Your task to perform on an android device: turn off javascript in the chrome app Image 0: 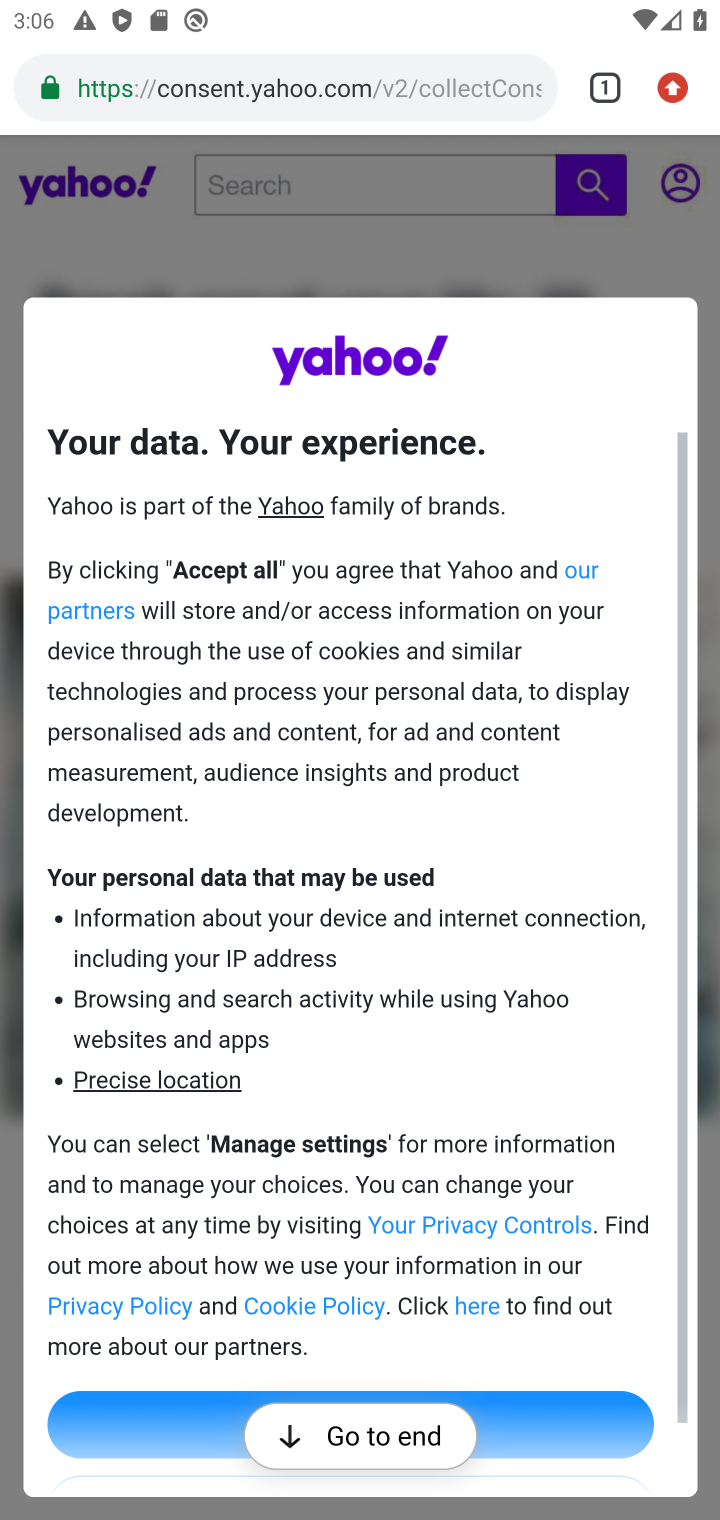
Step 0: drag from (709, 78) to (350, 1170)
Your task to perform on an android device: turn off javascript in the chrome app Image 1: 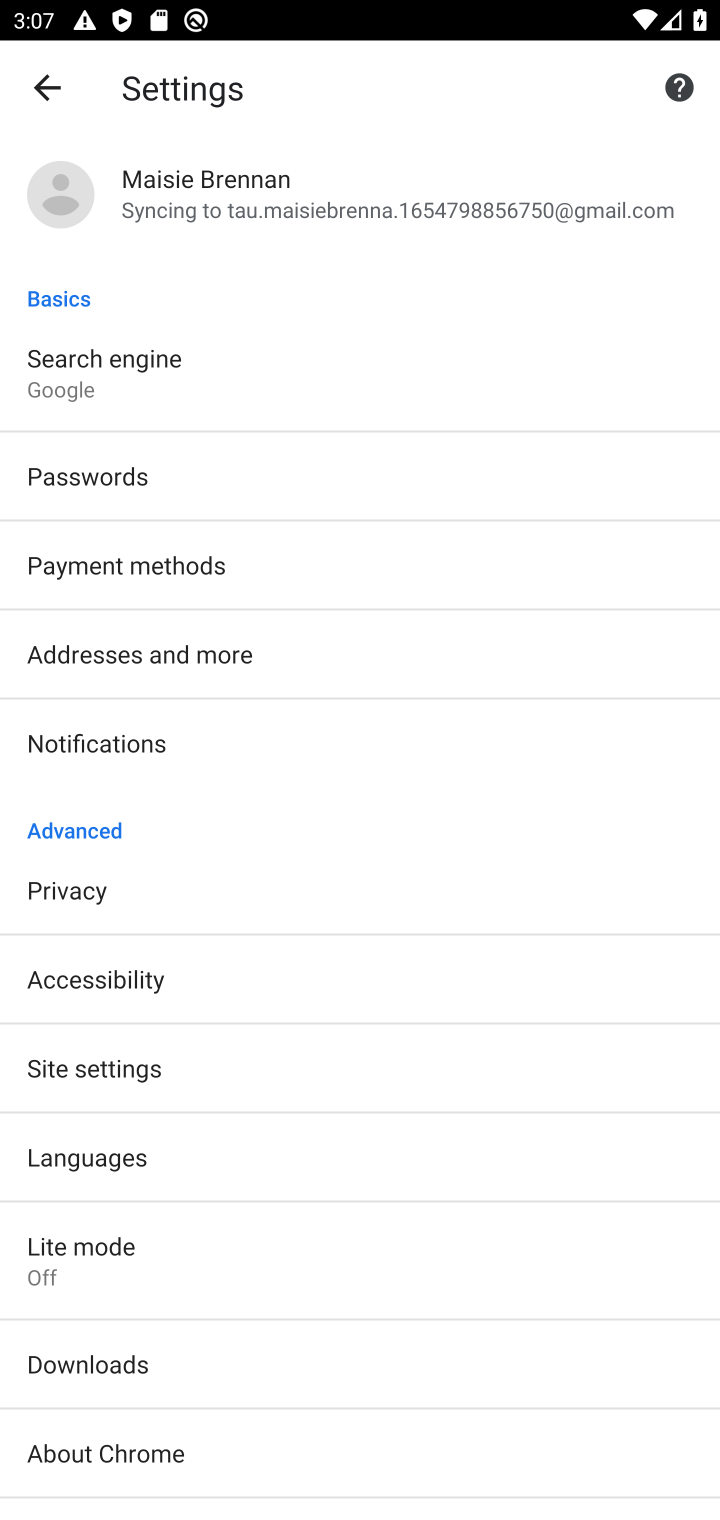
Step 1: click (113, 1058)
Your task to perform on an android device: turn off javascript in the chrome app Image 2: 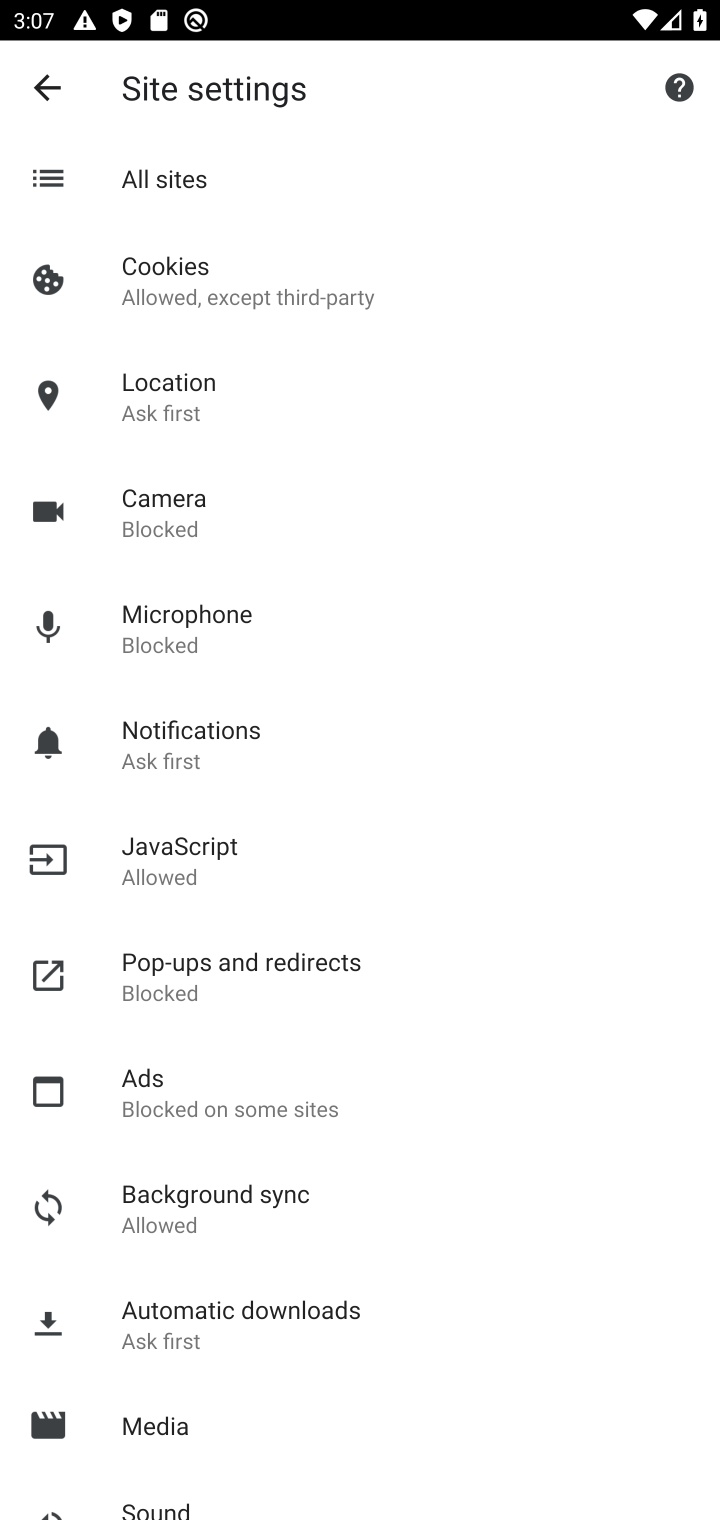
Step 2: click (192, 836)
Your task to perform on an android device: turn off javascript in the chrome app Image 3: 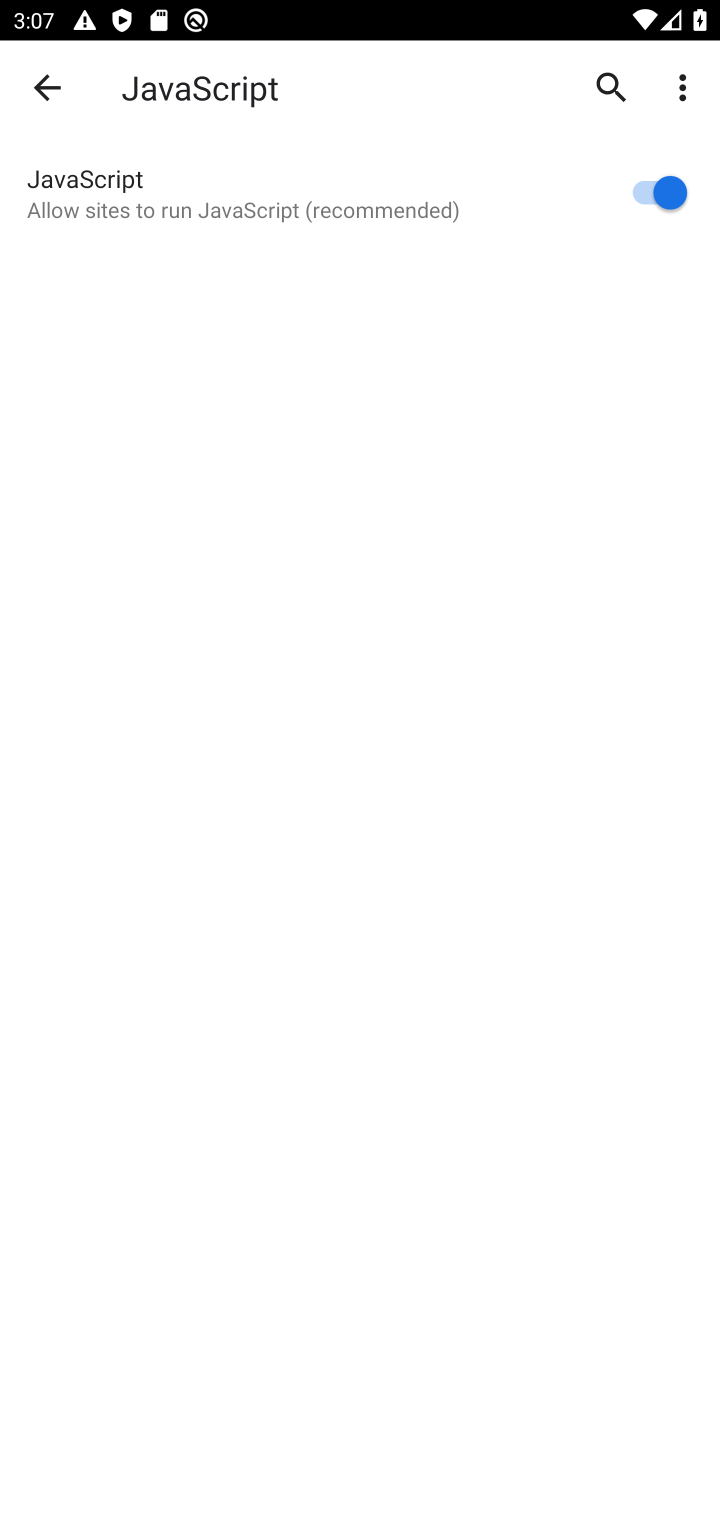
Step 3: click (646, 183)
Your task to perform on an android device: turn off javascript in the chrome app Image 4: 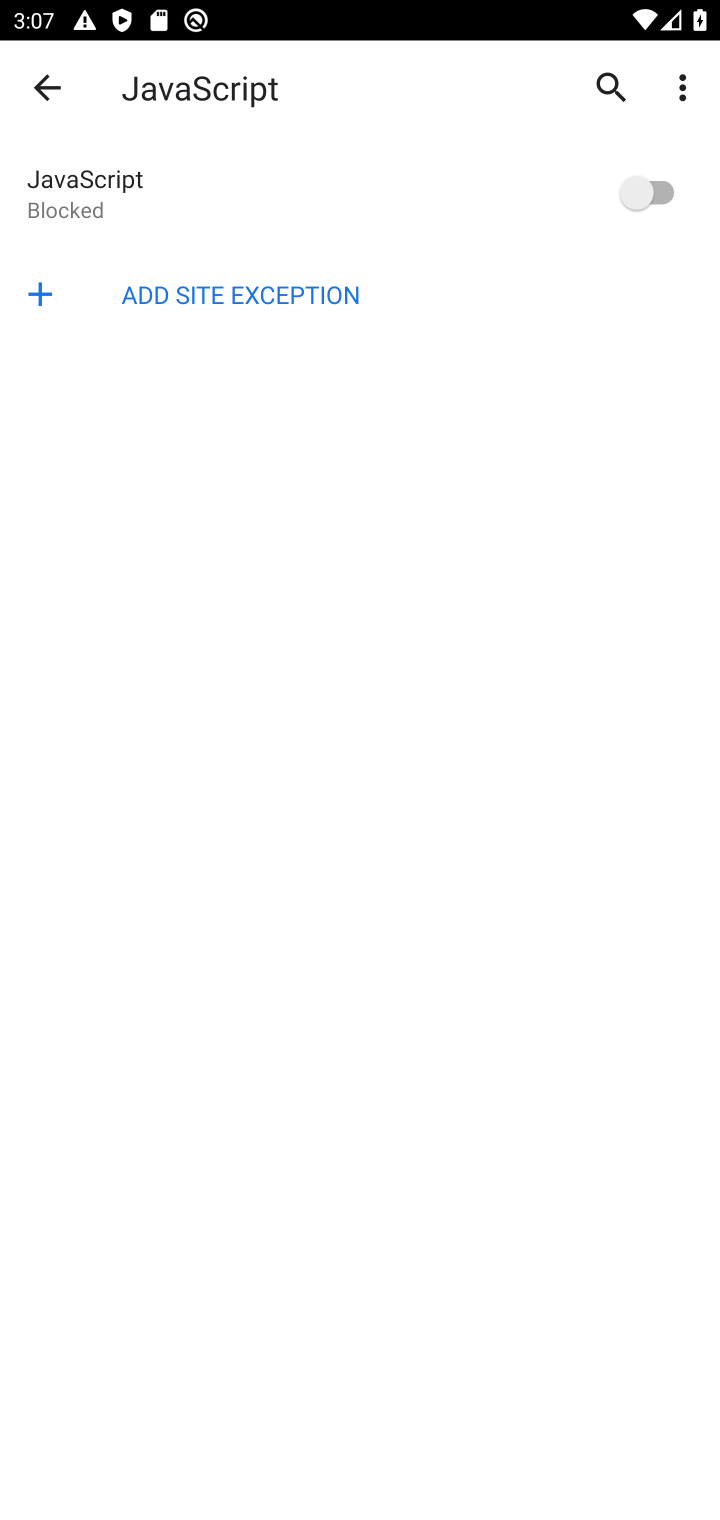
Step 4: task complete